Your task to perform on an android device: open device folders in google photos Image 0: 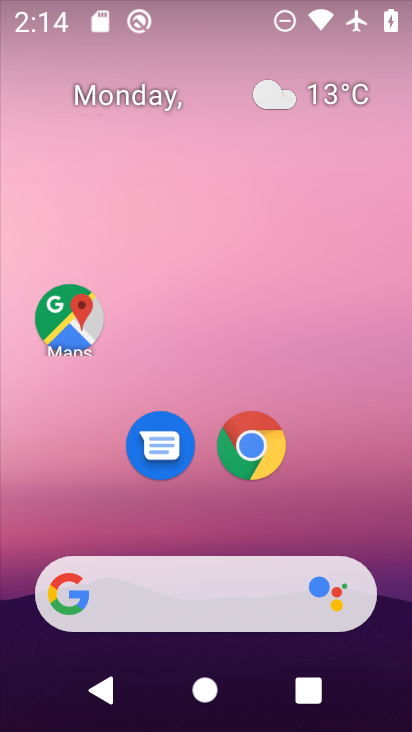
Step 0: drag from (394, 629) to (365, 148)
Your task to perform on an android device: open device folders in google photos Image 1: 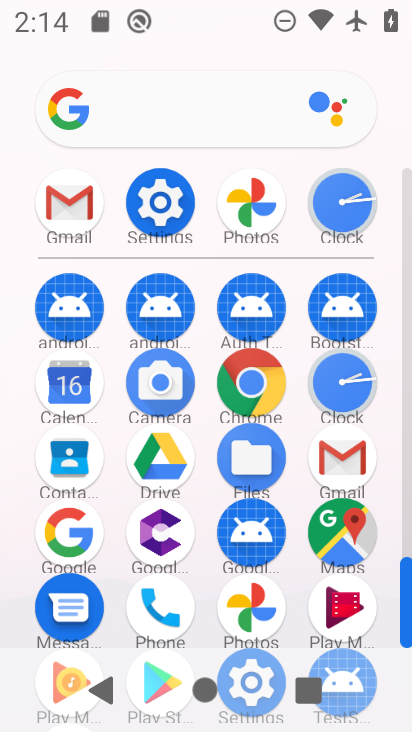
Step 1: click (265, 596)
Your task to perform on an android device: open device folders in google photos Image 2: 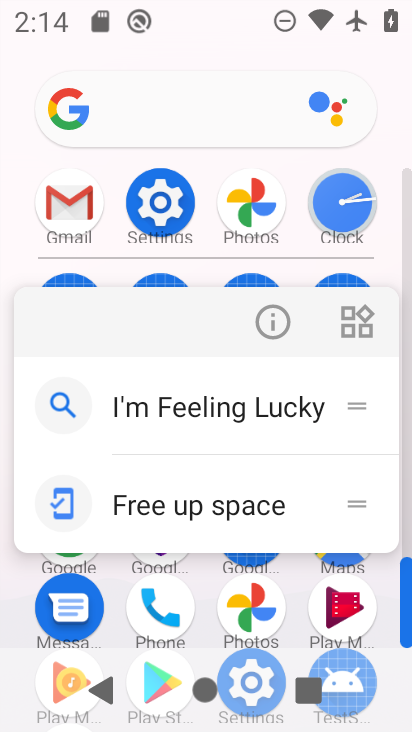
Step 2: click (260, 592)
Your task to perform on an android device: open device folders in google photos Image 3: 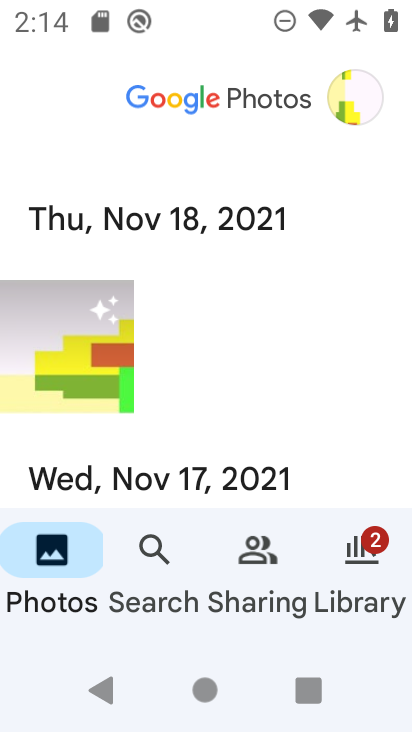
Step 3: task complete